Your task to perform on an android device: What's on my calendar tomorrow? Image 0: 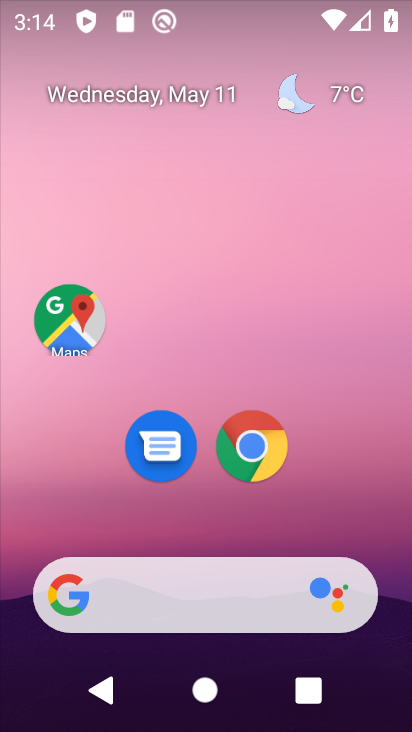
Step 0: drag from (285, 721) to (133, 84)
Your task to perform on an android device: What's on my calendar tomorrow? Image 1: 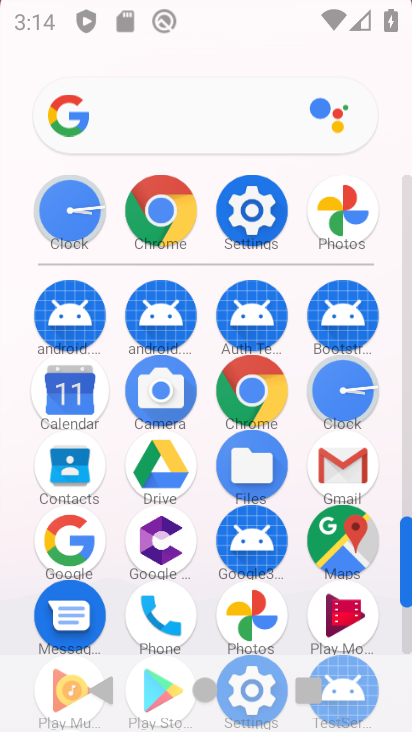
Step 1: drag from (307, 630) to (188, 65)
Your task to perform on an android device: What's on my calendar tomorrow? Image 2: 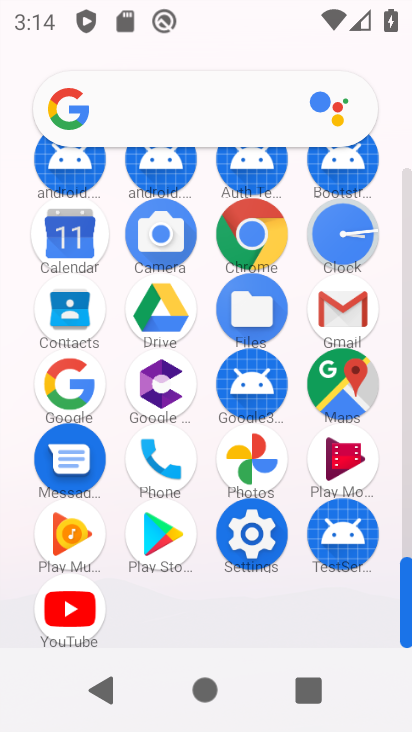
Step 2: drag from (197, 411) to (217, 590)
Your task to perform on an android device: What's on my calendar tomorrow? Image 3: 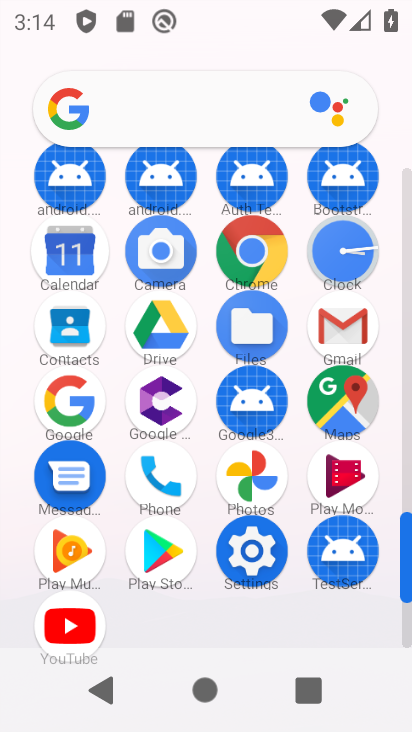
Step 3: click (58, 256)
Your task to perform on an android device: What's on my calendar tomorrow? Image 4: 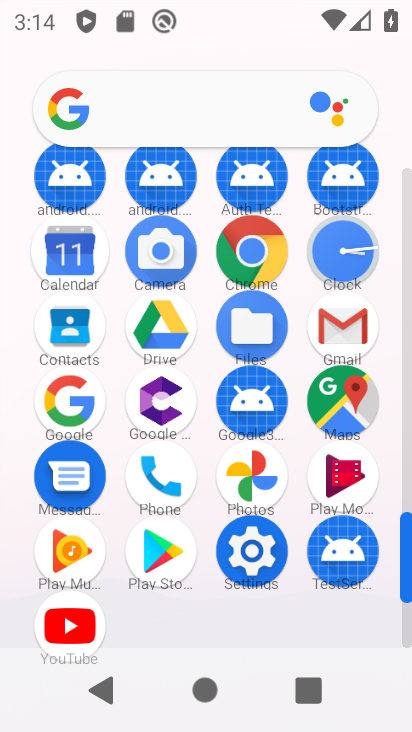
Step 4: click (58, 256)
Your task to perform on an android device: What's on my calendar tomorrow? Image 5: 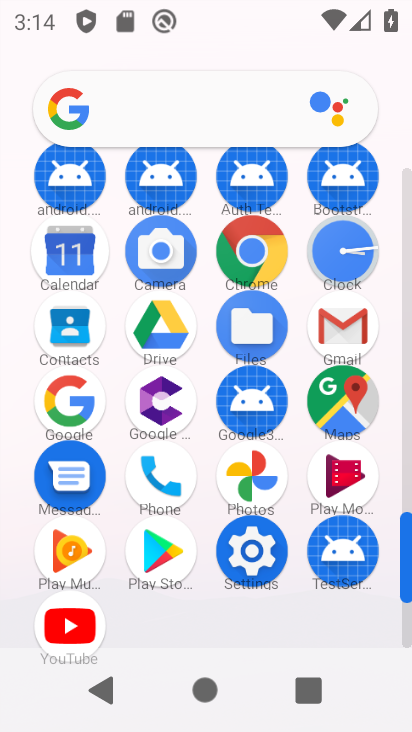
Step 5: click (62, 251)
Your task to perform on an android device: What's on my calendar tomorrow? Image 6: 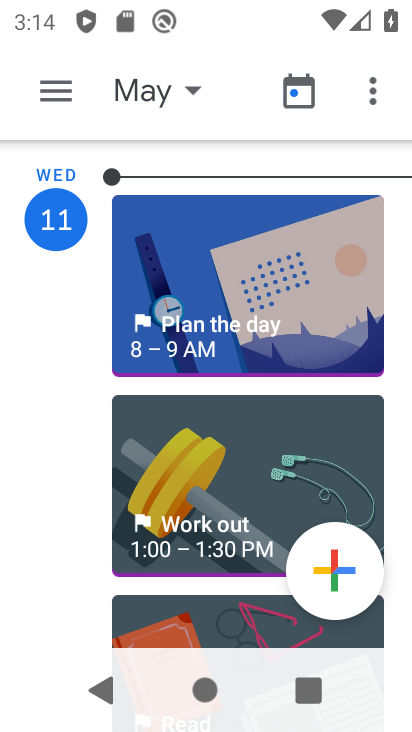
Step 6: click (64, 249)
Your task to perform on an android device: What's on my calendar tomorrow? Image 7: 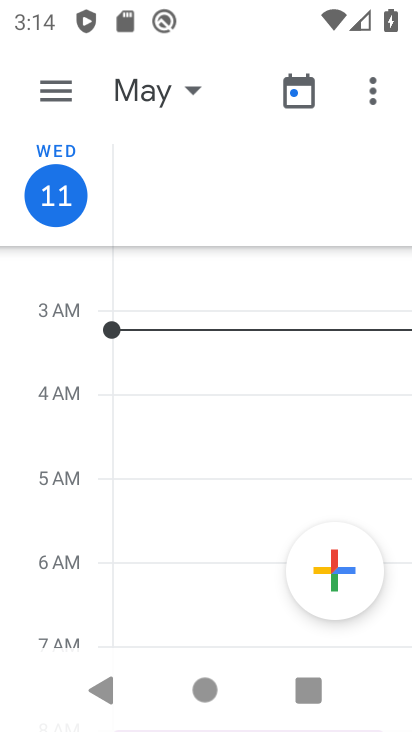
Step 7: drag from (198, 521) to (196, 108)
Your task to perform on an android device: What's on my calendar tomorrow? Image 8: 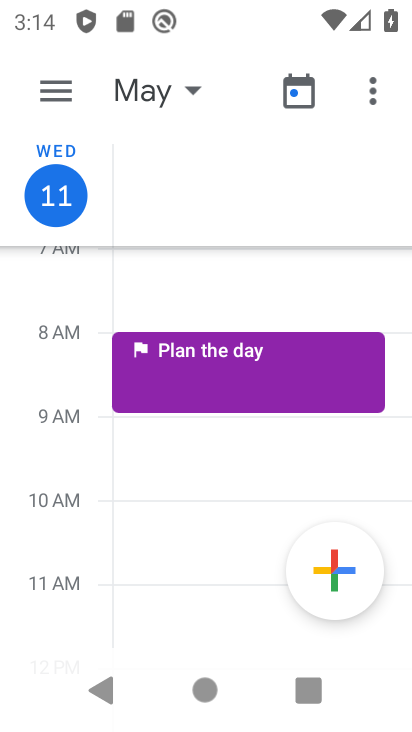
Step 8: drag from (183, 234) to (166, 131)
Your task to perform on an android device: What's on my calendar tomorrow? Image 9: 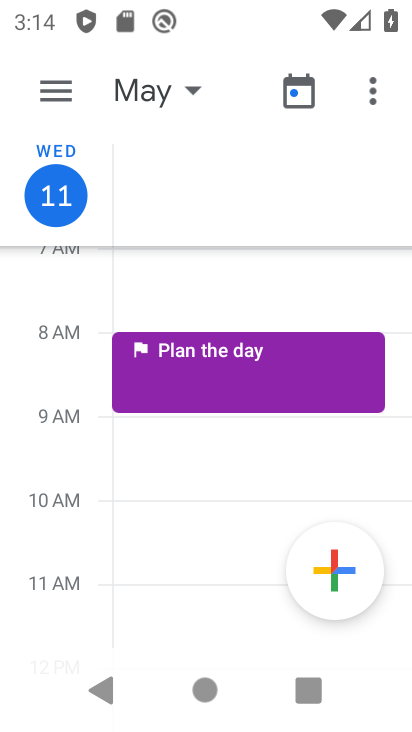
Step 9: drag from (196, 418) to (144, 114)
Your task to perform on an android device: What's on my calendar tomorrow? Image 10: 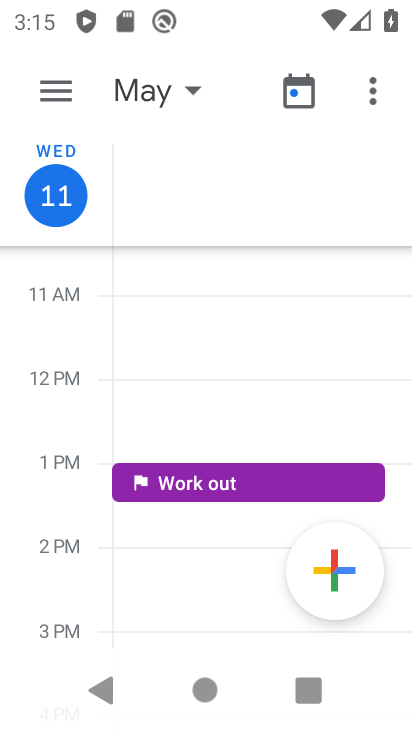
Step 10: click (48, 96)
Your task to perform on an android device: What's on my calendar tomorrow? Image 11: 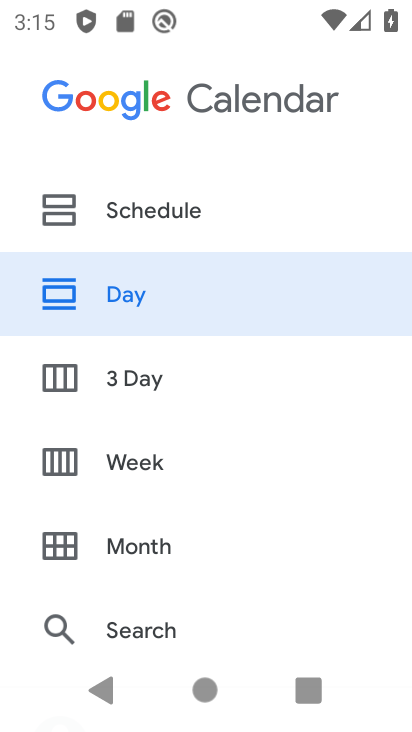
Step 11: click (158, 212)
Your task to perform on an android device: What's on my calendar tomorrow? Image 12: 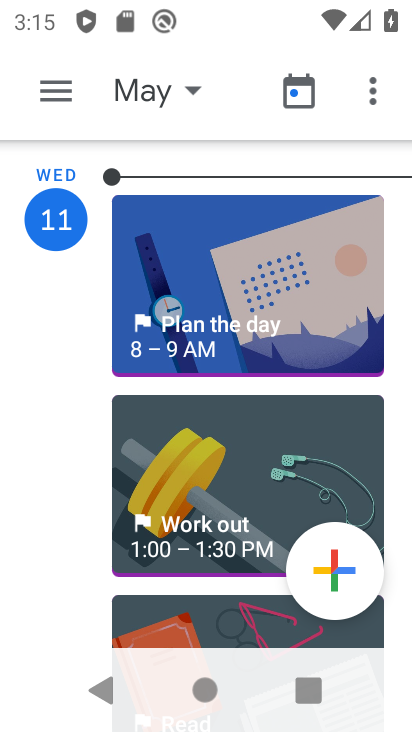
Step 12: click (65, 89)
Your task to perform on an android device: What's on my calendar tomorrow? Image 13: 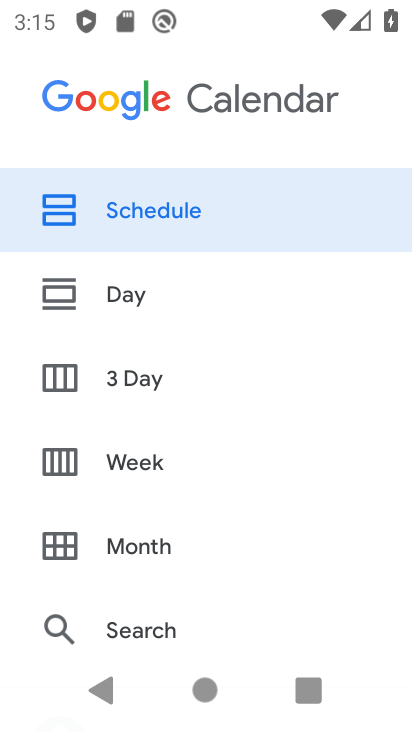
Step 13: click (201, 271)
Your task to perform on an android device: What's on my calendar tomorrow? Image 14: 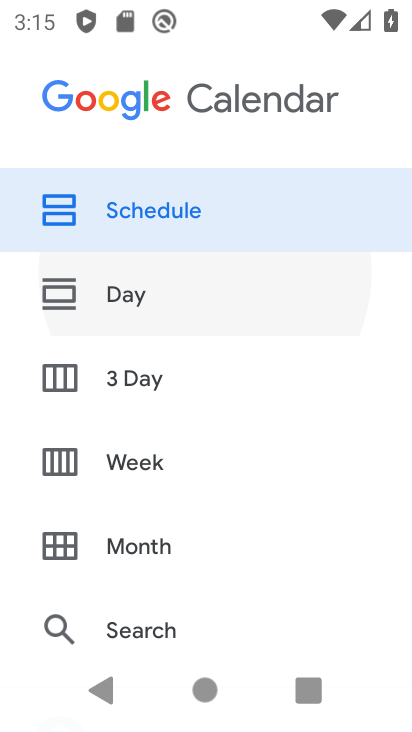
Step 14: click (176, 222)
Your task to perform on an android device: What's on my calendar tomorrow? Image 15: 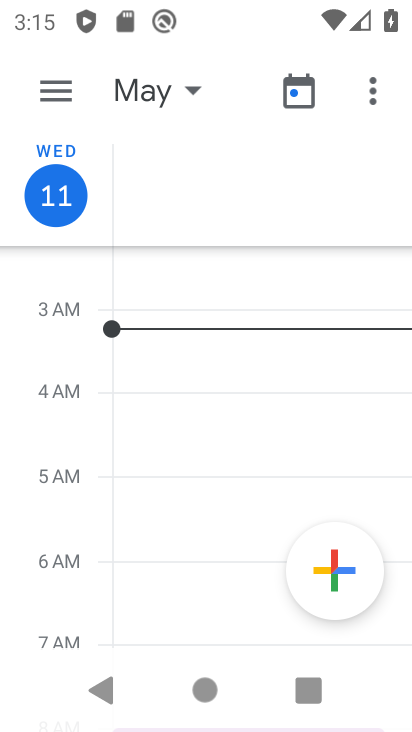
Step 15: click (59, 87)
Your task to perform on an android device: What's on my calendar tomorrow? Image 16: 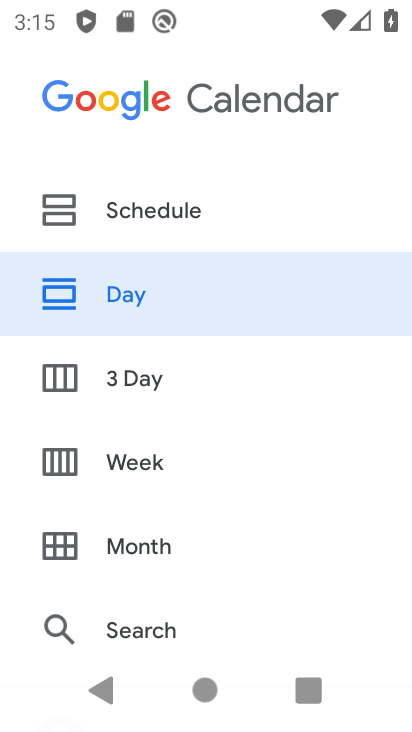
Step 16: click (128, 202)
Your task to perform on an android device: What's on my calendar tomorrow? Image 17: 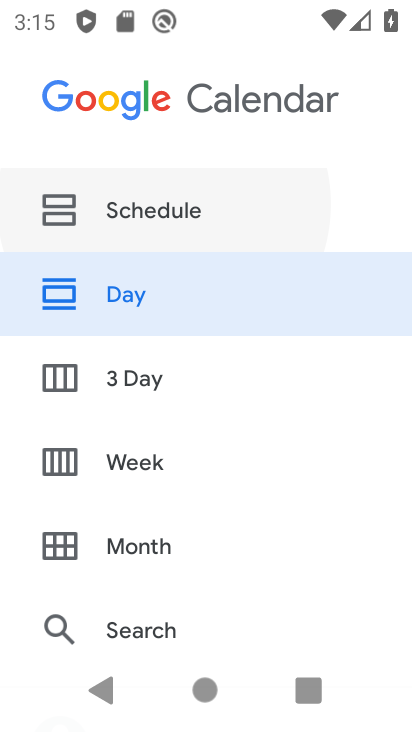
Step 17: click (129, 208)
Your task to perform on an android device: What's on my calendar tomorrow? Image 18: 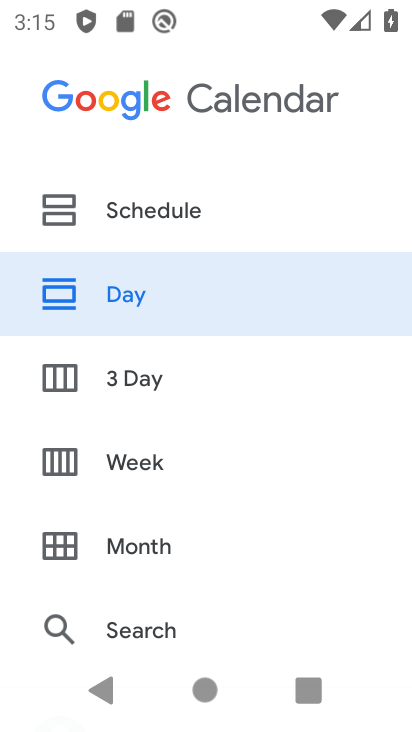
Step 18: click (133, 212)
Your task to perform on an android device: What's on my calendar tomorrow? Image 19: 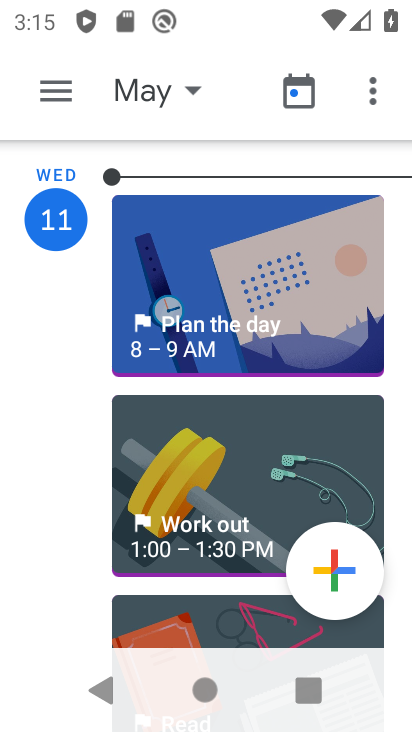
Step 19: click (57, 77)
Your task to perform on an android device: What's on my calendar tomorrow? Image 20: 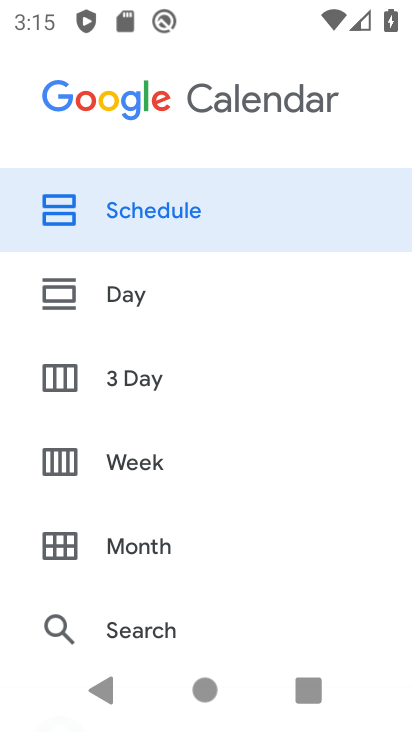
Step 20: click (171, 222)
Your task to perform on an android device: What's on my calendar tomorrow? Image 21: 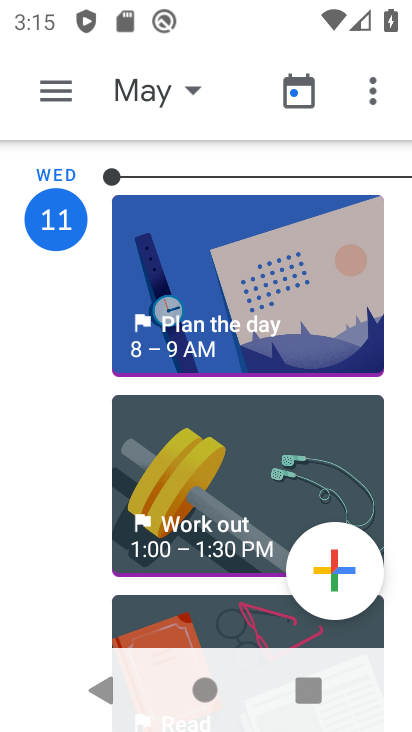
Step 21: task complete